Your task to perform on an android device: turn off sleep mode Image 0: 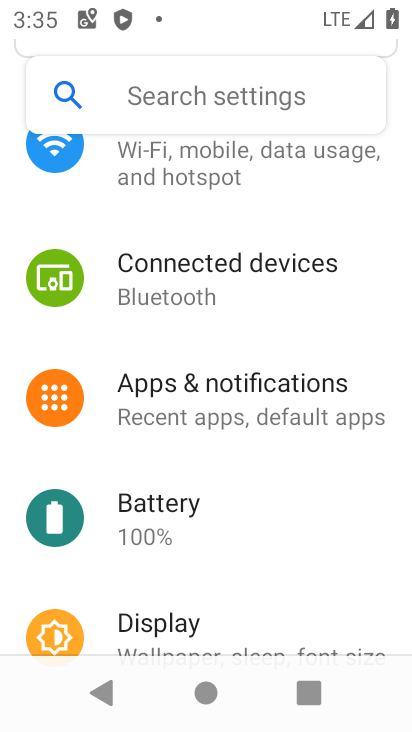
Step 0: press home button
Your task to perform on an android device: turn off sleep mode Image 1: 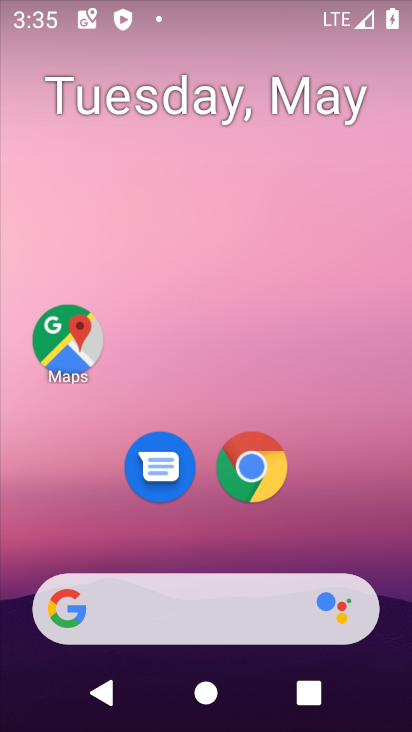
Step 1: drag from (349, 524) to (296, 60)
Your task to perform on an android device: turn off sleep mode Image 2: 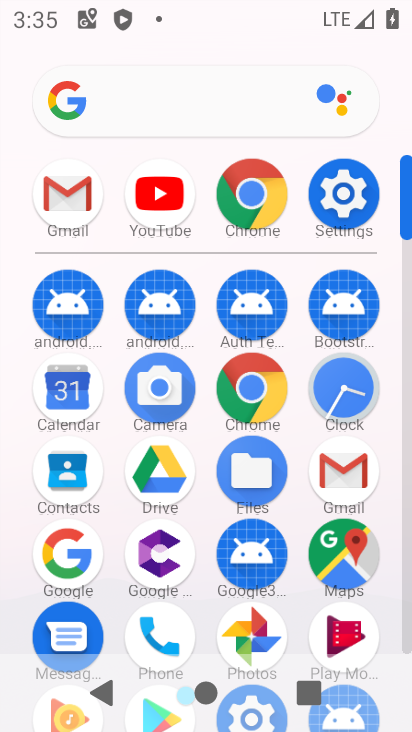
Step 2: click (340, 204)
Your task to perform on an android device: turn off sleep mode Image 3: 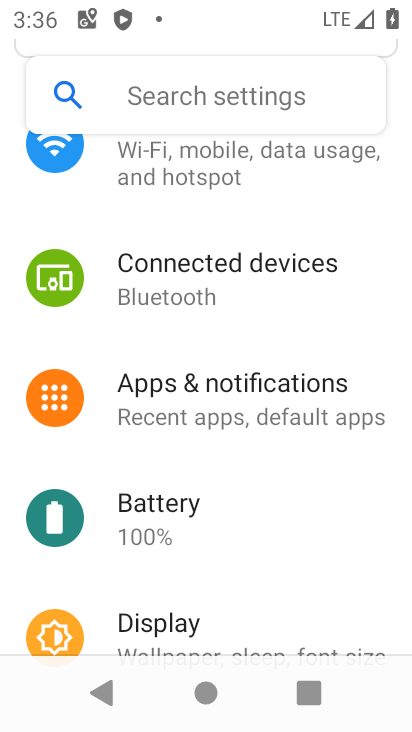
Step 3: drag from (323, 605) to (316, 289)
Your task to perform on an android device: turn off sleep mode Image 4: 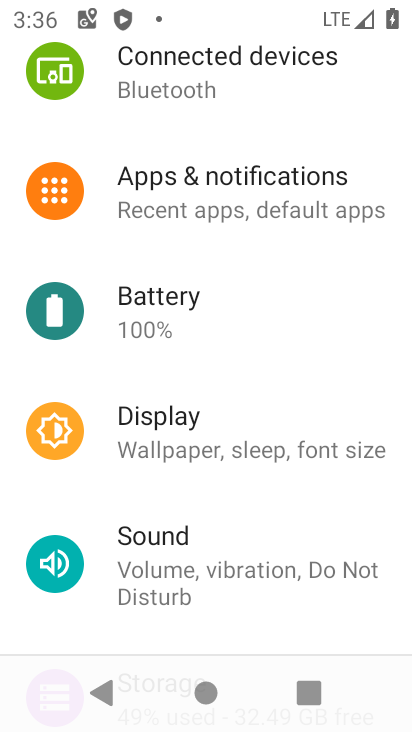
Step 4: click (168, 418)
Your task to perform on an android device: turn off sleep mode Image 5: 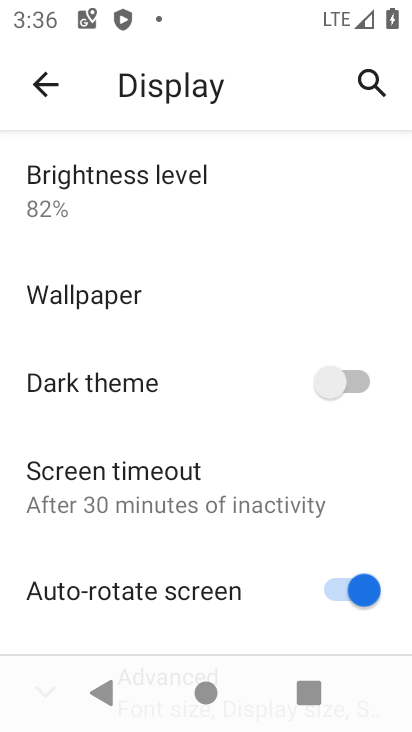
Step 5: drag from (177, 558) to (188, 232)
Your task to perform on an android device: turn off sleep mode Image 6: 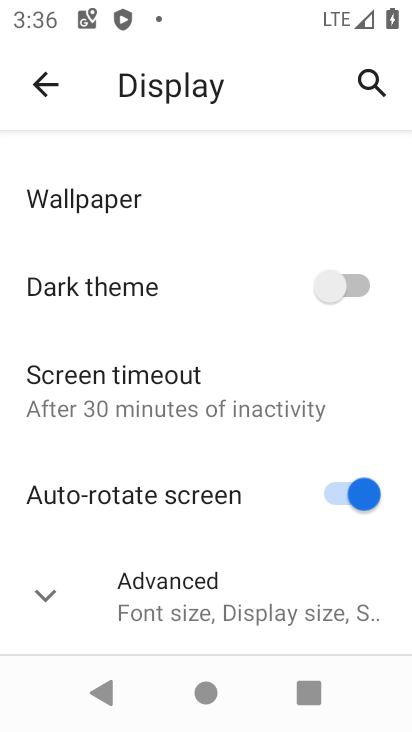
Step 6: click (39, 597)
Your task to perform on an android device: turn off sleep mode Image 7: 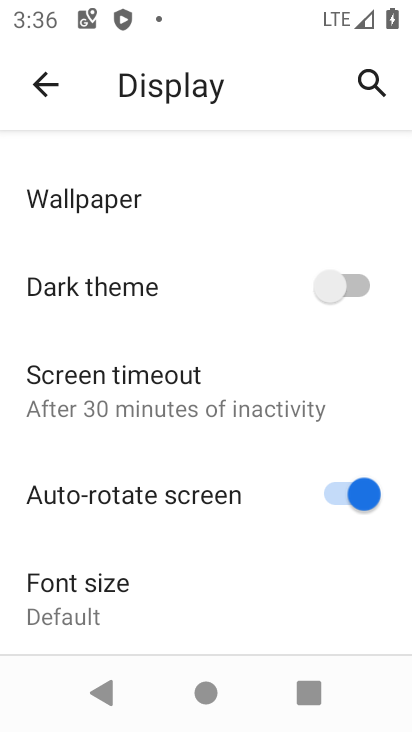
Step 7: task complete